Your task to perform on an android device: delete a single message in the gmail app Image 0: 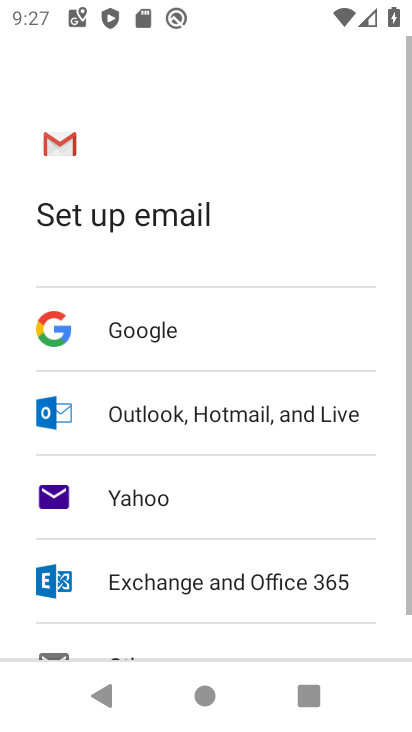
Step 0: press home button
Your task to perform on an android device: delete a single message in the gmail app Image 1: 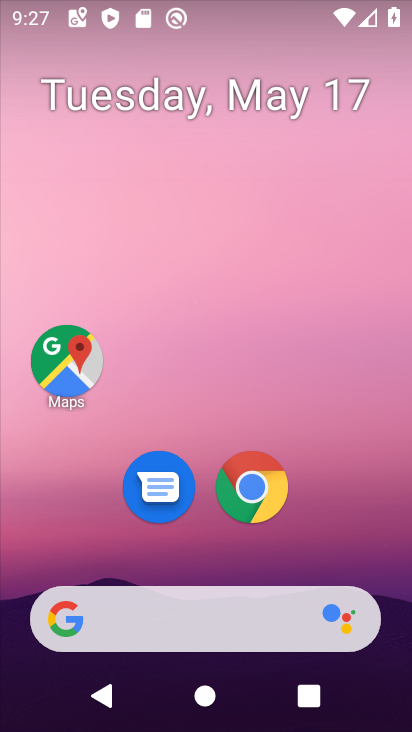
Step 1: drag from (244, 659) to (93, 381)
Your task to perform on an android device: delete a single message in the gmail app Image 2: 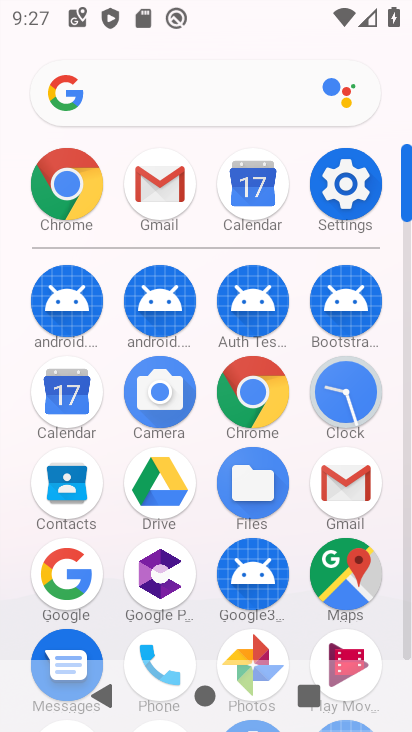
Step 2: click (330, 501)
Your task to perform on an android device: delete a single message in the gmail app Image 3: 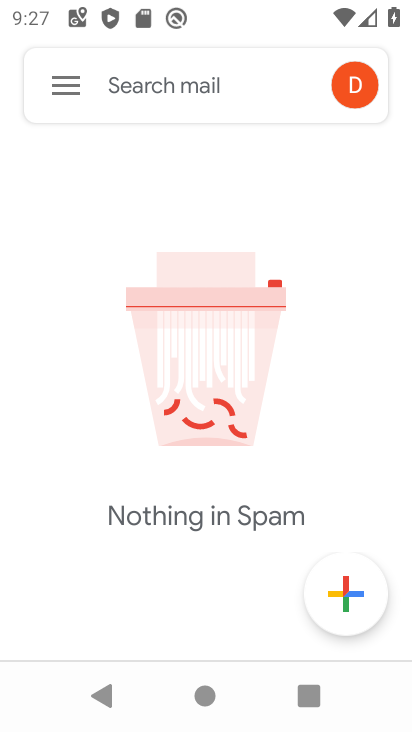
Step 3: click (54, 108)
Your task to perform on an android device: delete a single message in the gmail app Image 4: 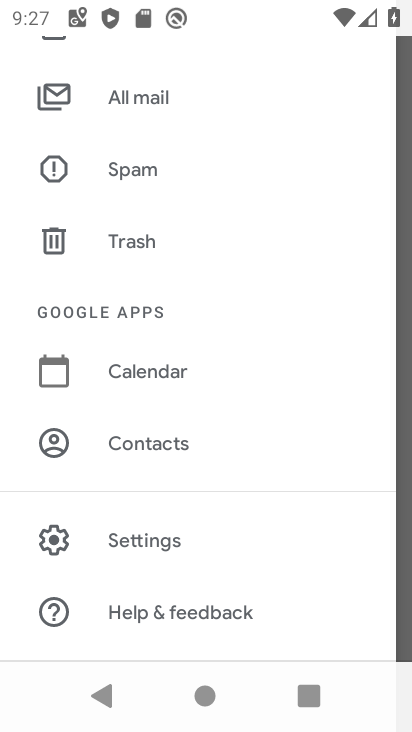
Step 4: click (140, 101)
Your task to perform on an android device: delete a single message in the gmail app Image 5: 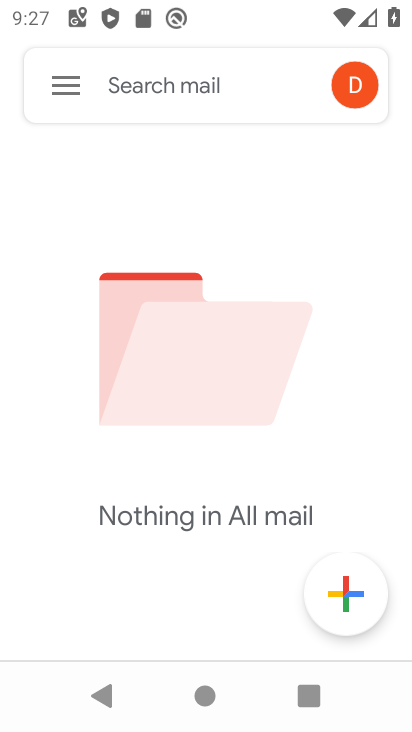
Step 5: task complete